Your task to perform on an android device: Open my contact list Image 0: 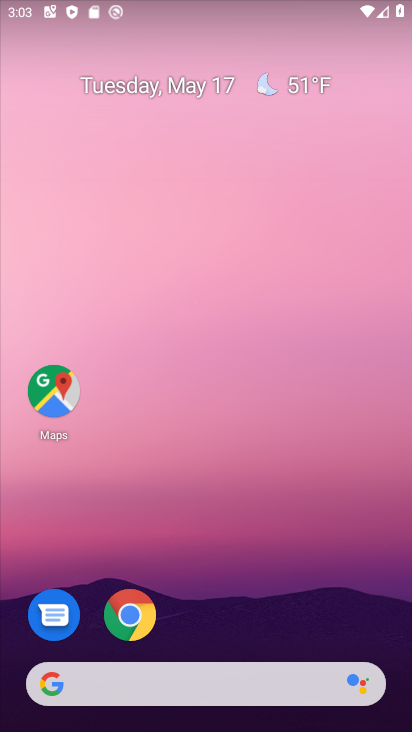
Step 0: press home button
Your task to perform on an android device: Open my contact list Image 1: 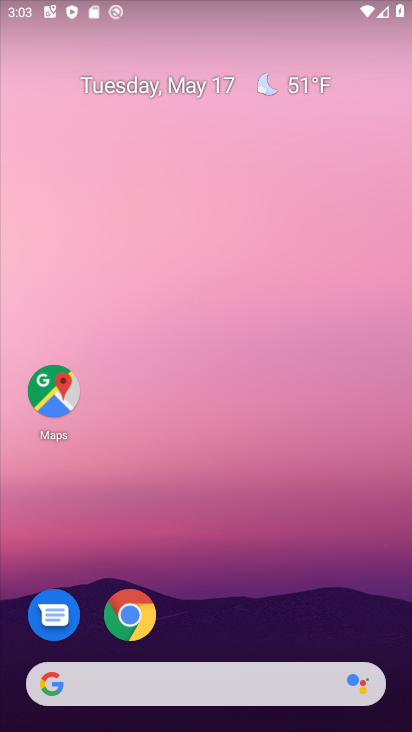
Step 1: drag from (214, 617) to (284, 165)
Your task to perform on an android device: Open my contact list Image 2: 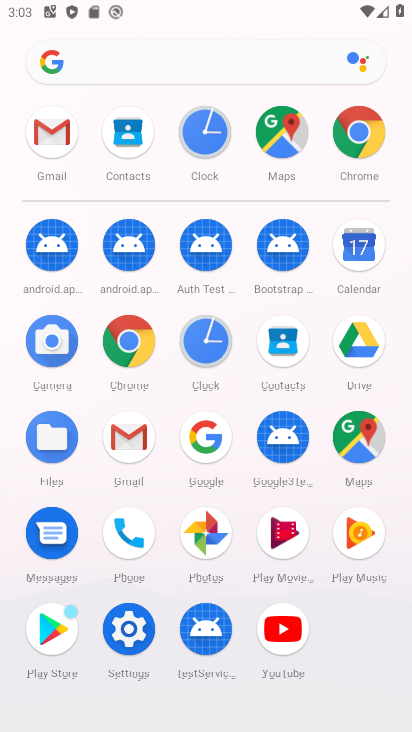
Step 2: click (274, 333)
Your task to perform on an android device: Open my contact list Image 3: 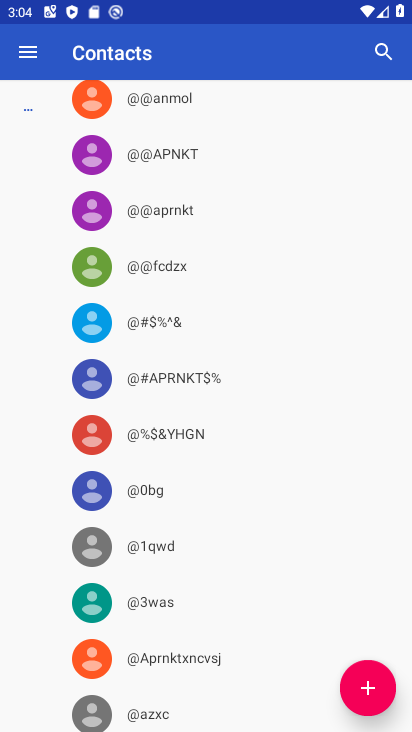
Step 3: task complete